Your task to perform on an android device: open device folders in google photos Image 0: 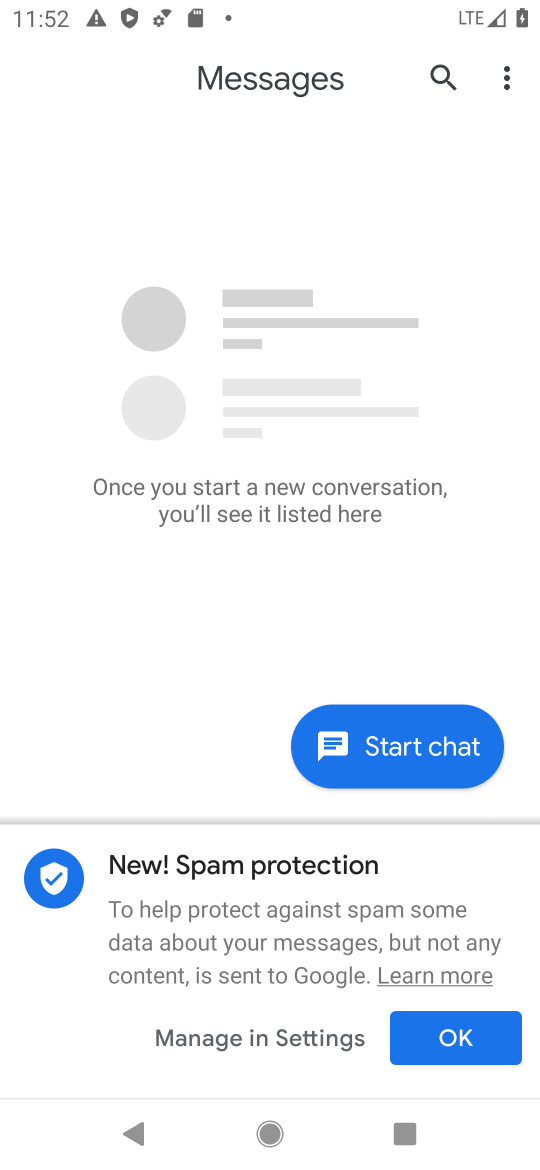
Step 0: press home button
Your task to perform on an android device: open device folders in google photos Image 1: 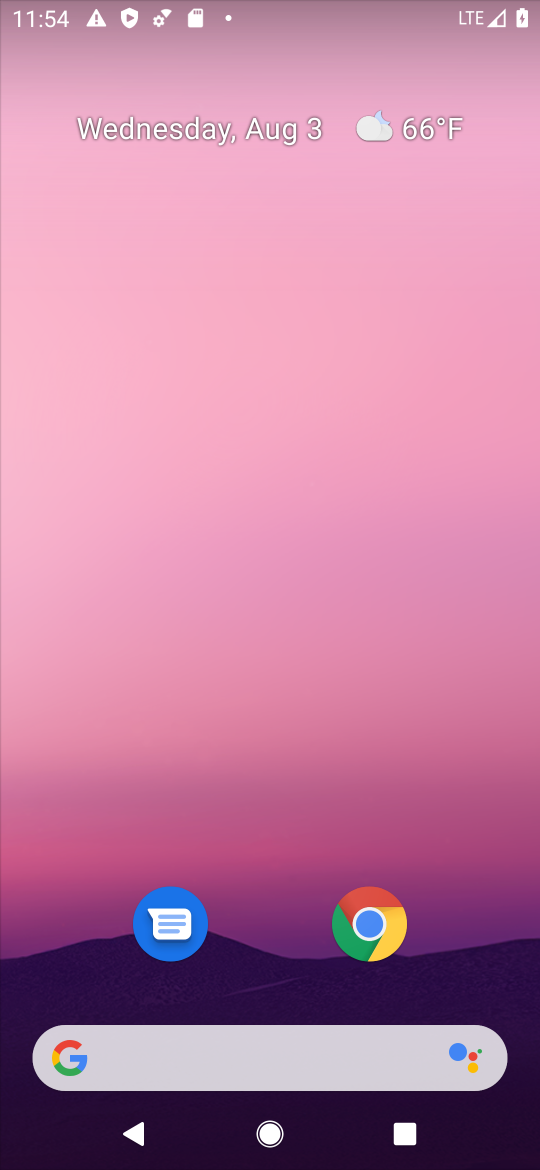
Step 1: drag from (92, 1030) to (339, 259)
Your task to perform on an android device: open device folders in google photos Image 2: 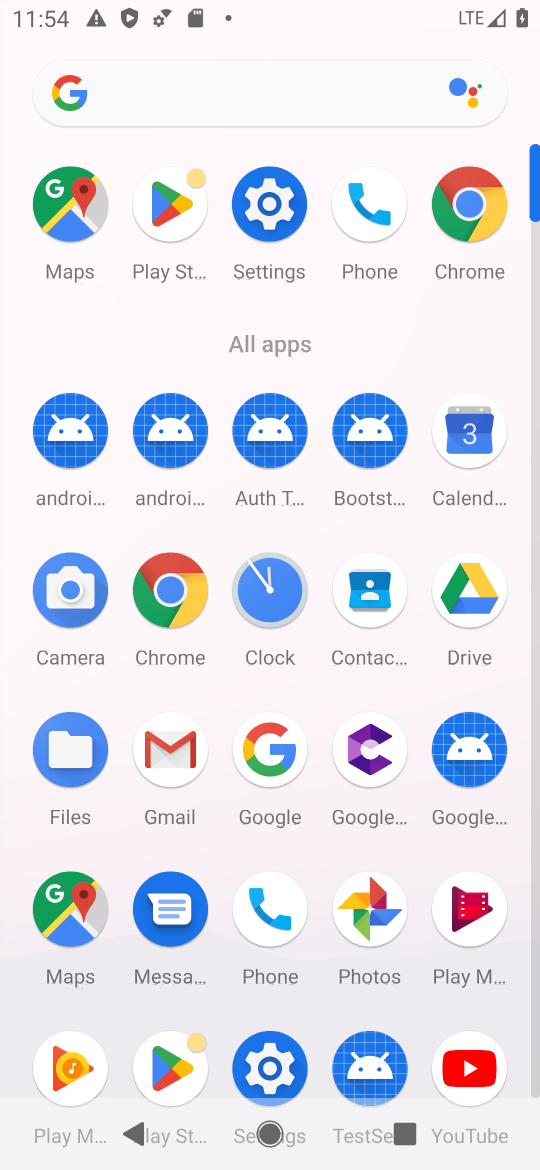
Step 2: click (367, 902)
Your task to perform on an android device: open device folders in google photos Image 3: 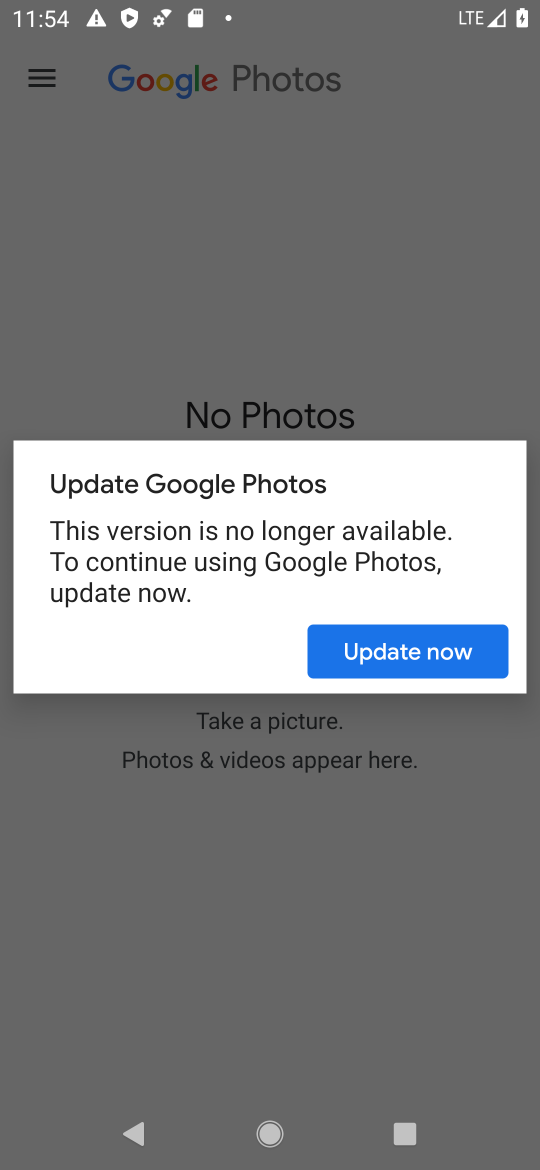
Step 3: task complete